Your task to perform on an android device: turn on bluetooth scan Image 0: 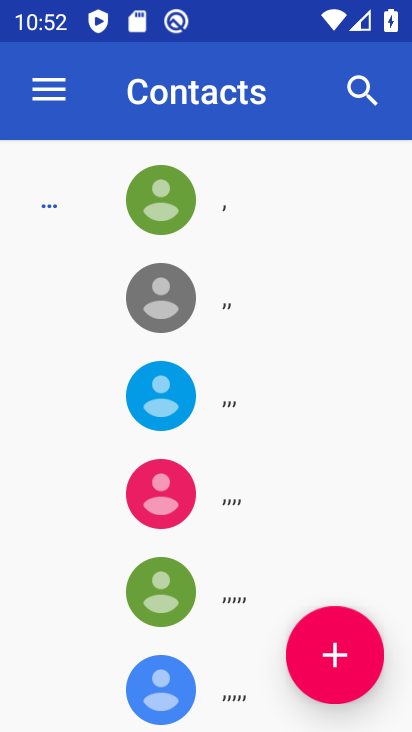
Step 0: press back button
Your task to perform on an android device: turn on bluetooth scan Image 1: 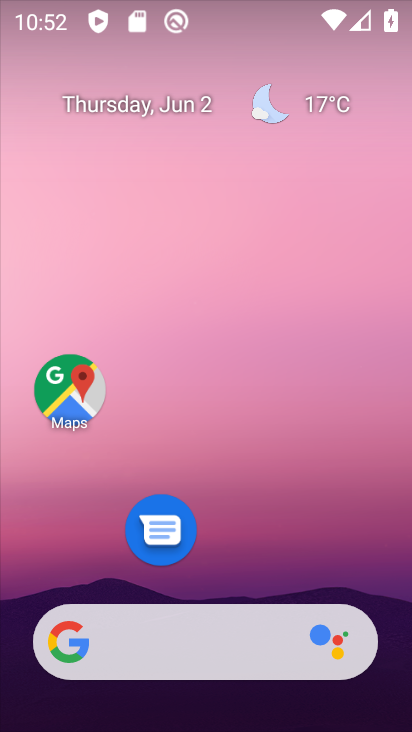
Step 1: drag from (252, 717) to (150, 78)
Your task to perform on an android device: turn on bluetooth scan Image 2: 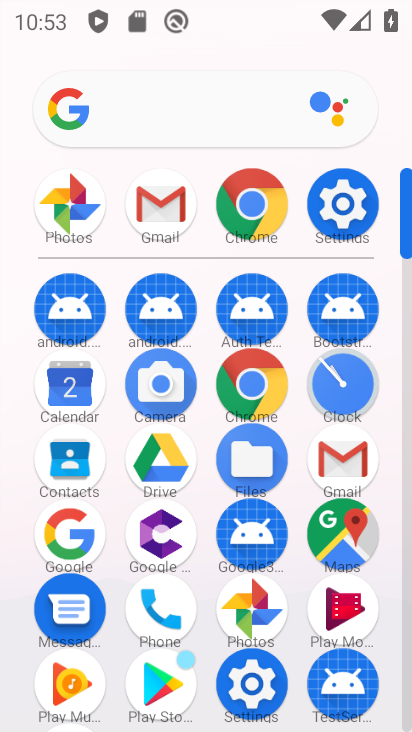
Step 2: click (248, 681)
Your task to perform on an android device: turn on bluetooth scan Image 3: 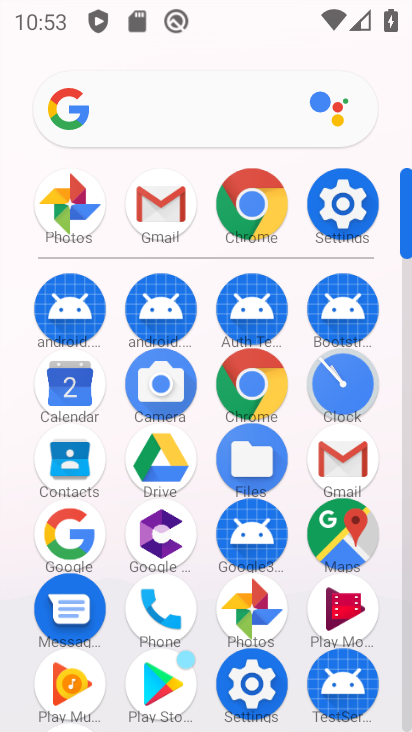
Step 3: click (248, 678)
Your task to perform on an android device: turn on bluetooth scan Image 4: 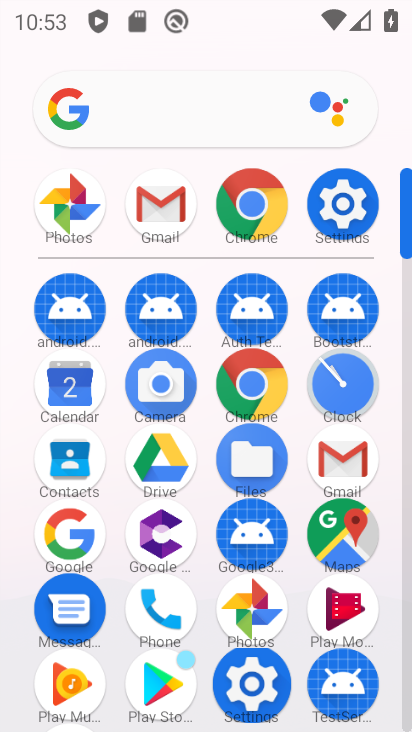
Step 4: click (251, 672)
Your task to perform on an android device: turn on bluetooth scan Image 5: 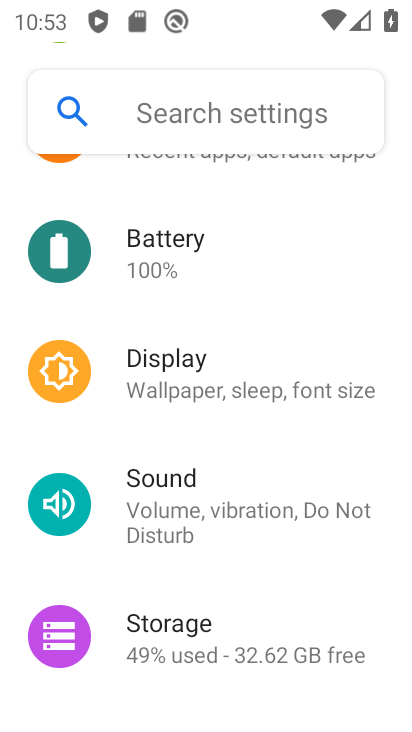
Step 5: drag from (196, 493) to (192, 166)
Your task to perform on an android device: turn on bluetooth scan Image 6: 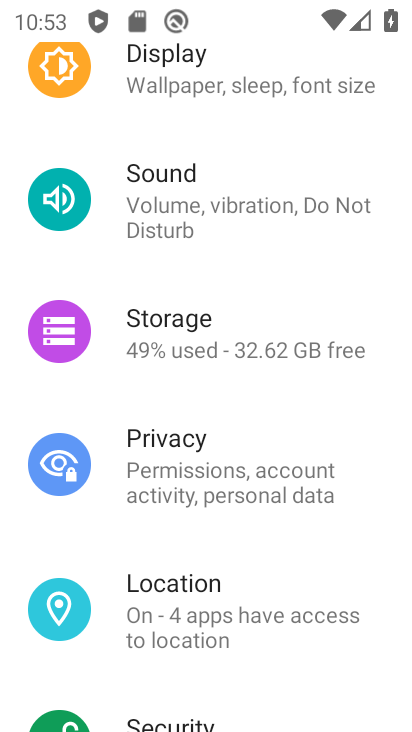
Step 6: drag from (193, 464) to (193, 185)
Your task to perform on an android device: turn on bluetooth scan Image 7: 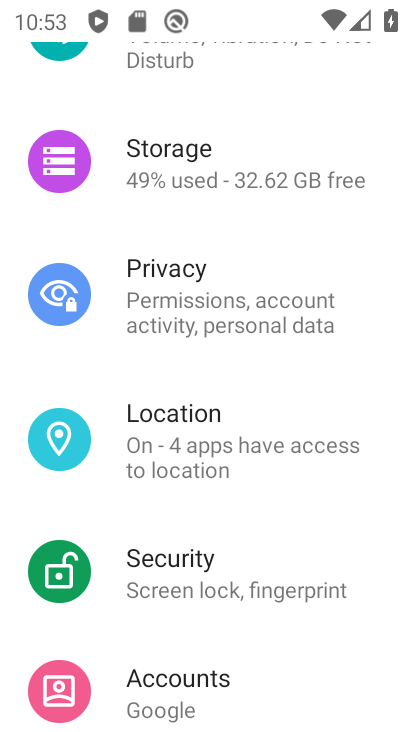
Step 7: drag from (208, 542) to (217, 315)
Your task to perform on an android device: turn on bluetooth scan Image 8: 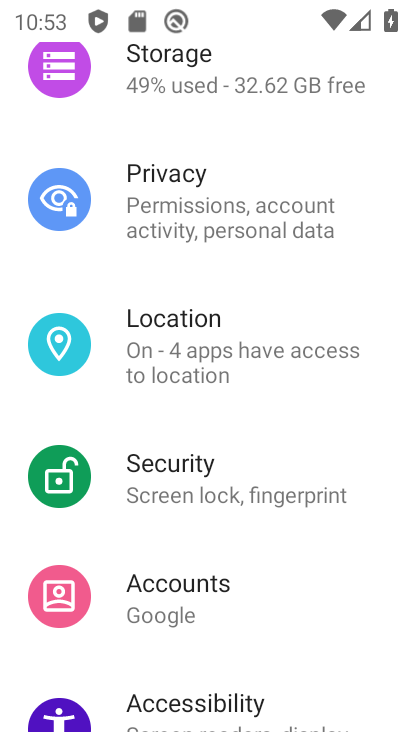
Step 8: drag from (186, 456) to (186, 270)
Your task to perform on an android device: turn on bluetooth scan Image 9: 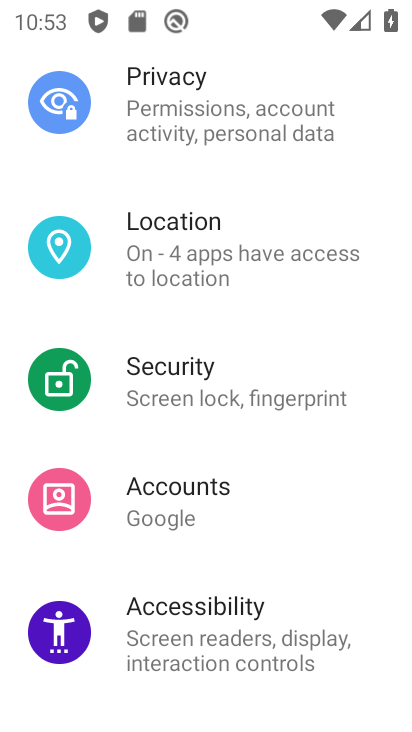
Step 9: click (185, 257)
Your task to perform on an android device: turn on bluetooth scan Image 10: 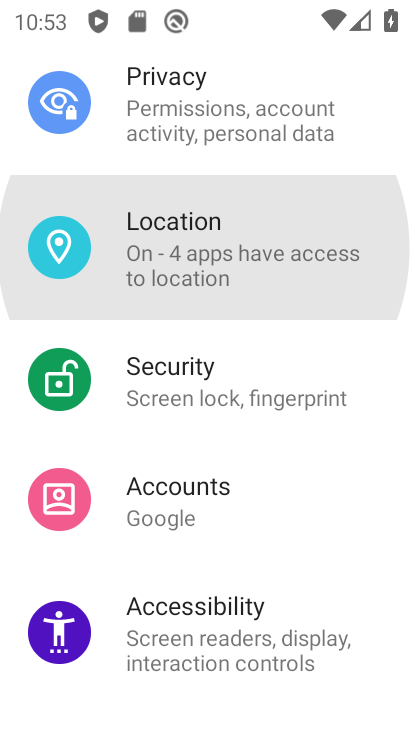
Step 10: click (185, 257)
Your task to perform on an android device: turn on bluetooth scan Image 11: 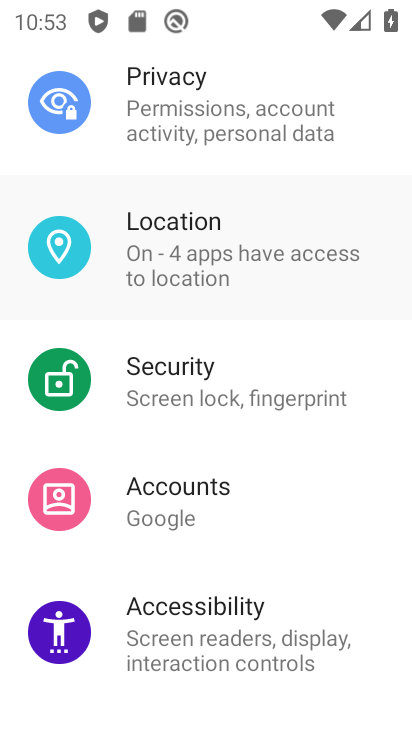
Step 11: click (185, 257)
Your task to perform on an android device: turn on bluetooth scan Image 12: 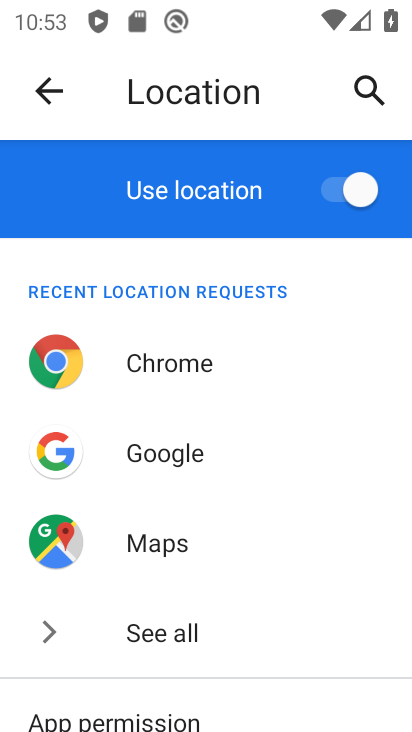
Step 12: drag from (220, 567) to (203, 416)
Your task to perform on an android device: turn on bluetooth scan Image 13: 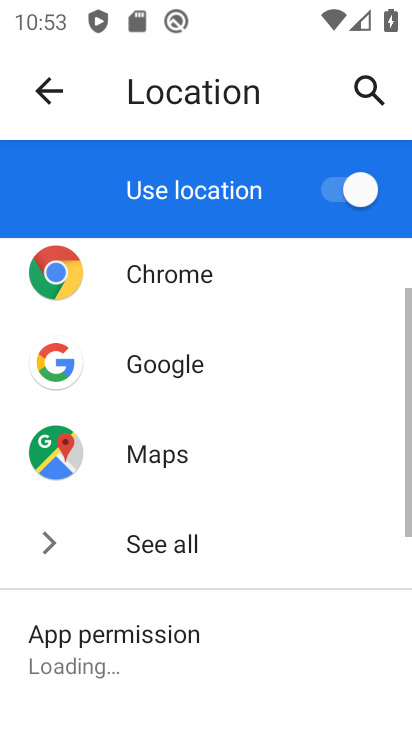
Step 13: drag from (191, 515) to (206, 321)
Your task to perform on an android device: turn on bluetooth scan Image 14: 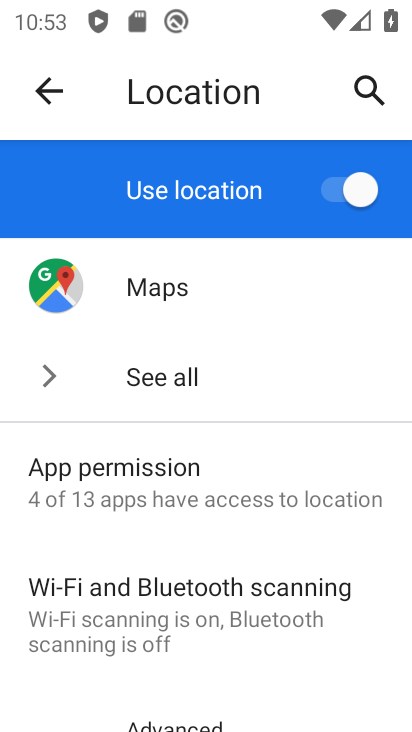
Step 14: click (127, 604)
Your task to perform on an android device: turn on bluetooth scan Image 15: 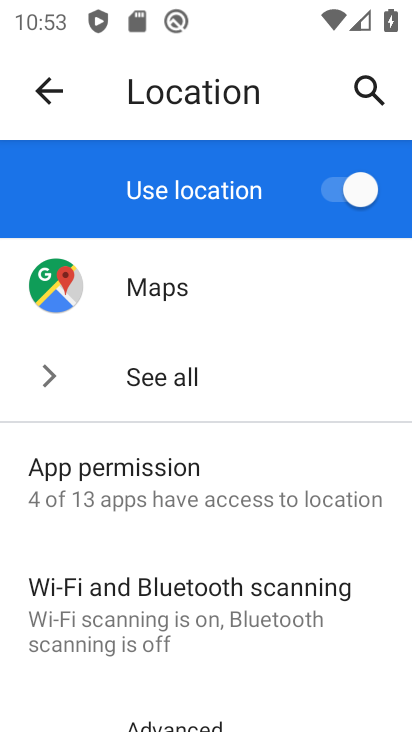
Step 15: click (124, 609)
Your task to perform on an android device: turn on bluetooth scan Image 16: 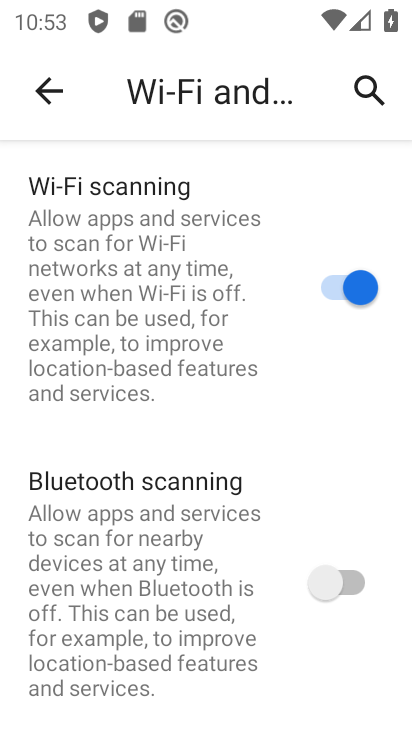
Step 16: click (330, 579)
Your task to perform on an android device: turn on bluetooth scan Image 17: 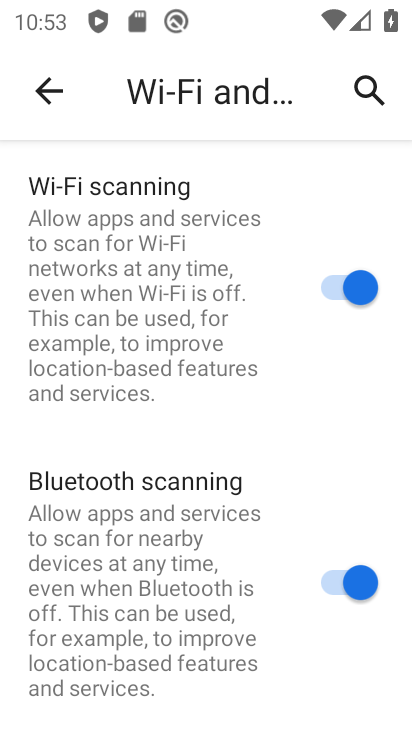
Step 17: task complete